Your task to perform on an android device: turn off translation in the chrome app Image 0: 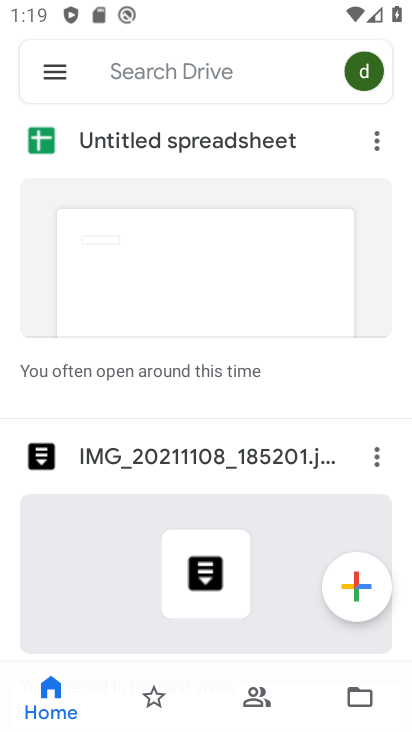
Step 0: press home button
Your task to perform on an android device: turn off translation in the chrome app Image 1: 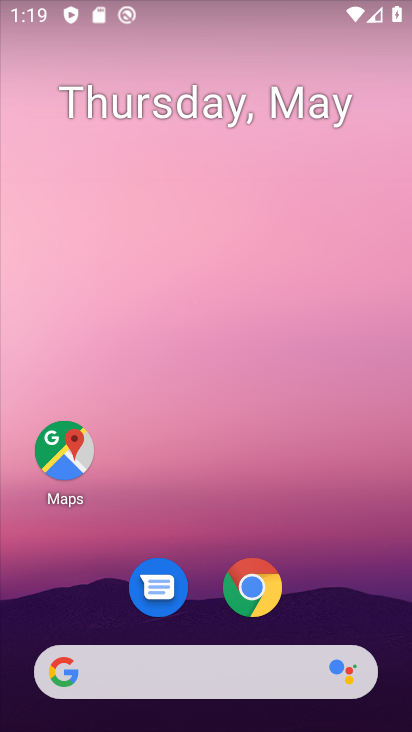
Step 1: click (258, 583)
Your task to perform on an android device: turn off translation in the chrome app Image 2: 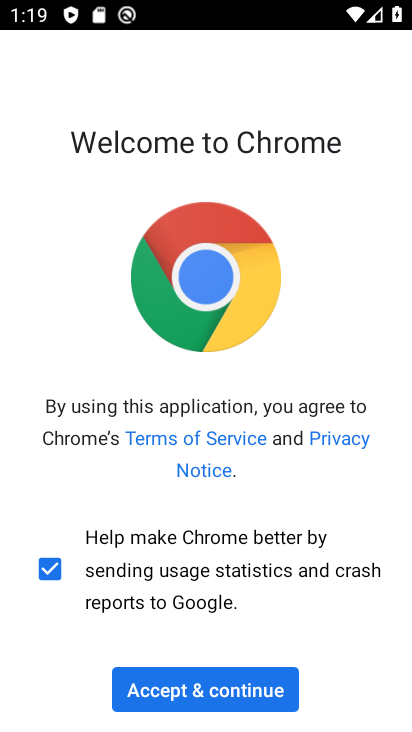
Step 2: click (197, 690)
Your task to perform on an android device: turn off translation in the chrome app Image 3: 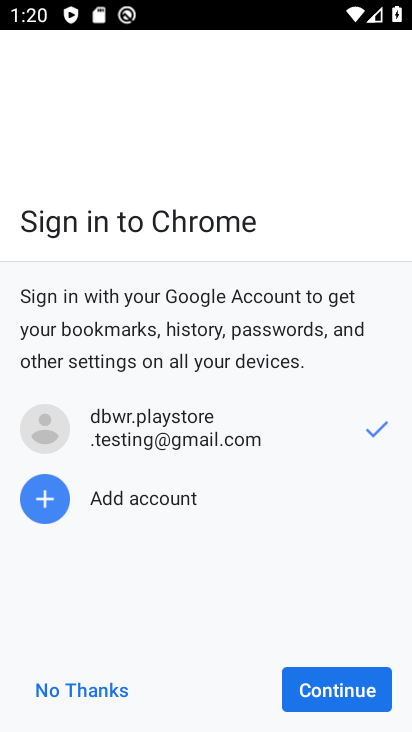
Step 3: click (367, 671)
Your task to perform on an android device: turn off translation in the chrome app Image 4: 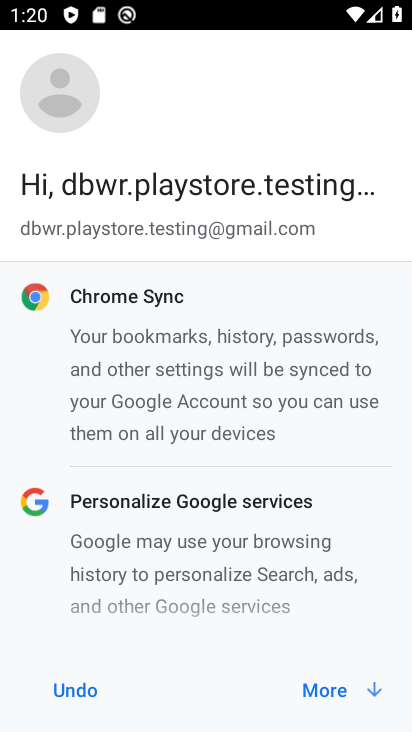
Step 4: click (377, 687)
Your task to perform on an android device: turn off translation in the chrome app Image 5: 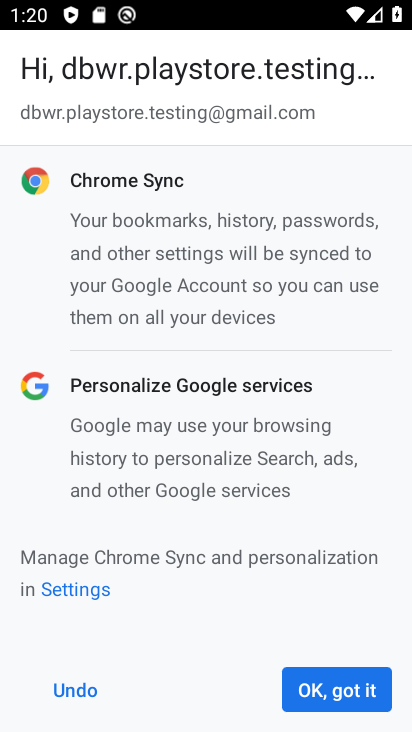
Step 5: click (346, 691)
Your task to perform on an android device: turn off translation in the chrome app Image 6: 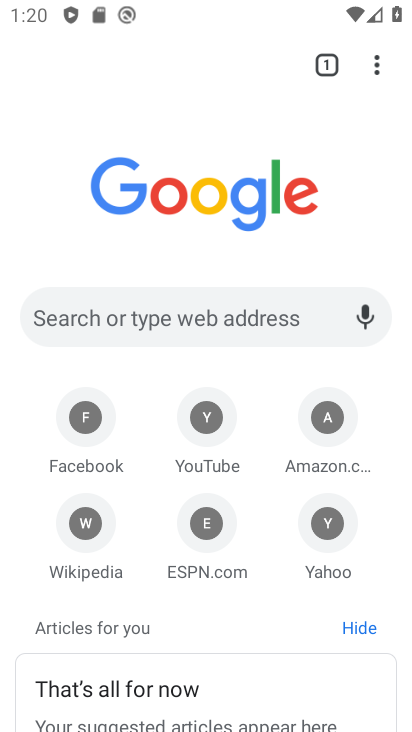
Step 6: click (378, 57)
Your task to perform on an android device: turn off translation in the chrome app Image 7: 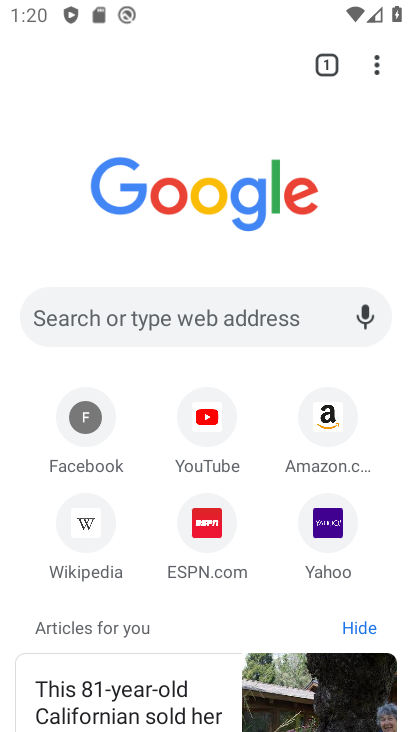
Step 7: click (374, 65)
Your task to perform on an android device: turn off translation in the chrome app Image 8: 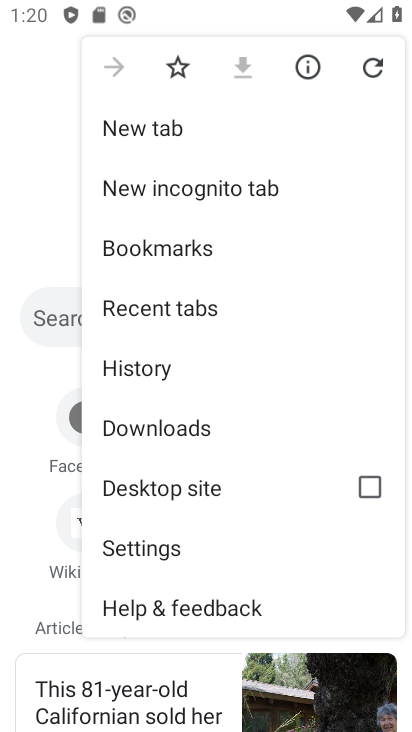
Step 8: click (151, 543)
Your task to perform on an android device: turn off translation in the chrome app Image 9: 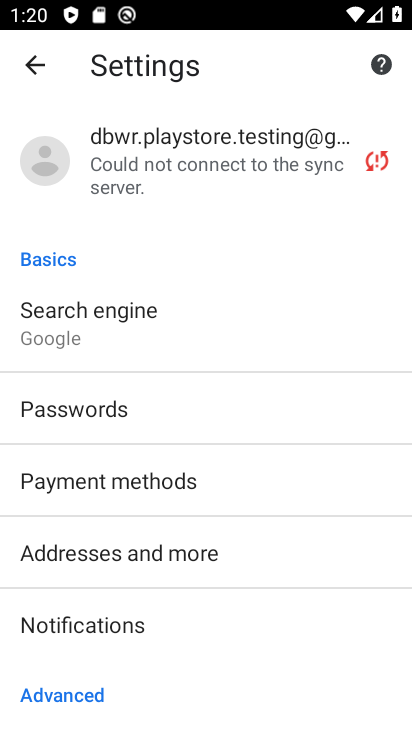
Step 9: drag from (201, 591) to (132, 283)
Your task to perform on an android device: turn off translation in the chrome app Image 10: 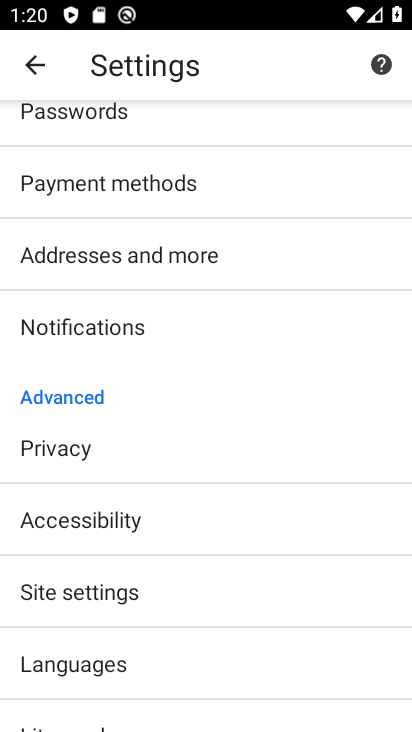
Step 10: click (91, 655)
Your task to perform on an android device: turn off translation in the chrome app Image 11: 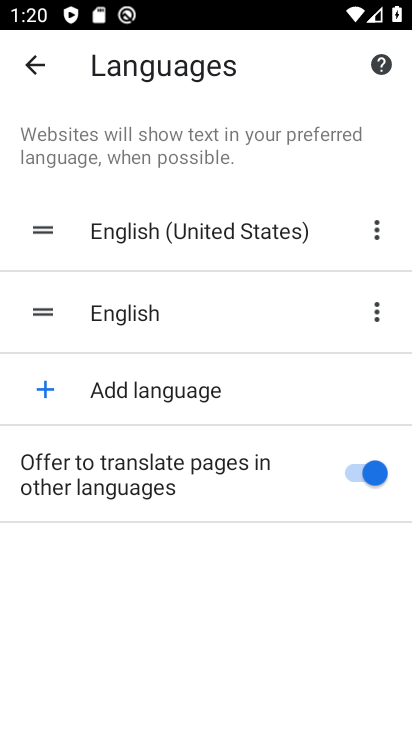
Step 11: click (360, 475)
Your task to perform on an android device: turn off translation in the chrome app Image 12: 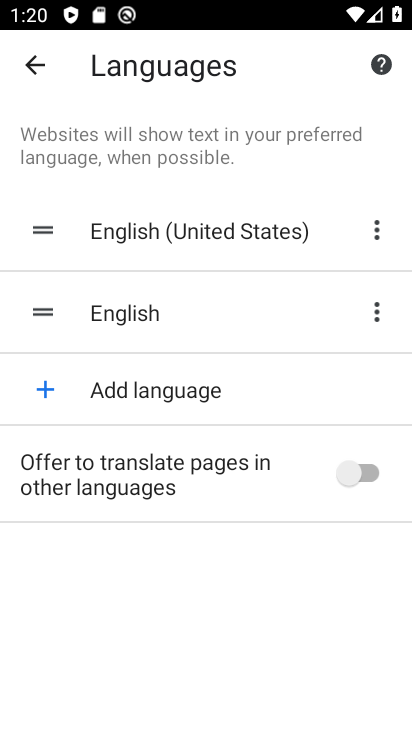
Step 12: task complete